Your task to perform on an android device: add a contact in the contacts app Image 0: 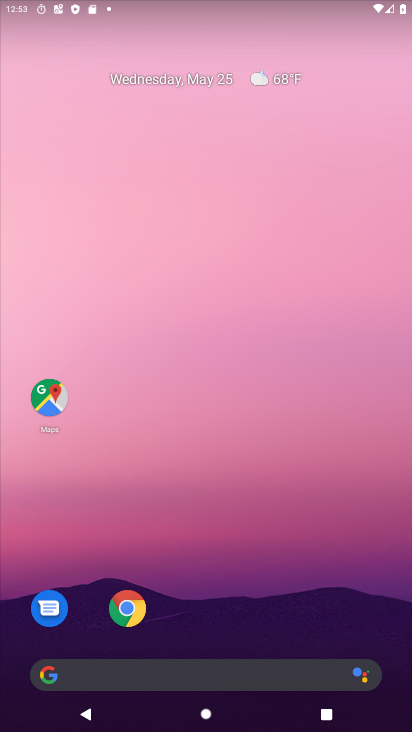
Step 0: drag from (278, 594) to (313, 20)
Your task to perform on an android device: add a contact in the contacts app Image 1: 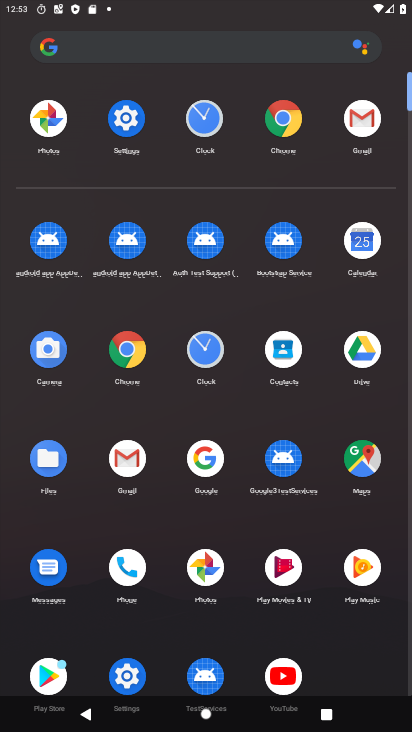
Step 1: click (284, 343)
Your task to perform on an android device: add a contact in the contacts app Image 2: 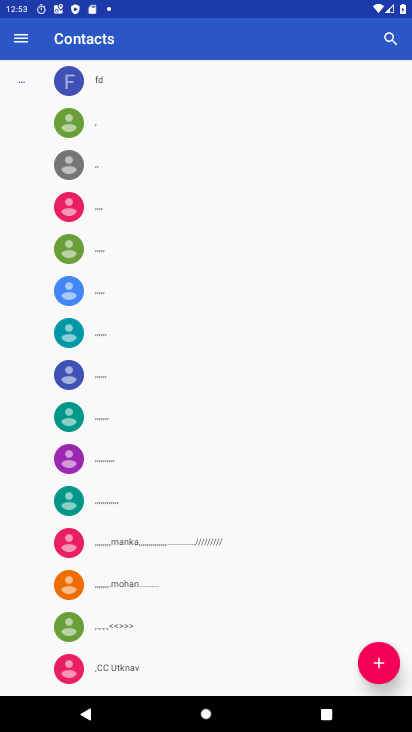
Step 2: click (394, 682)
Your task to perform on an android device: add a contact in the contacts app Image 3: 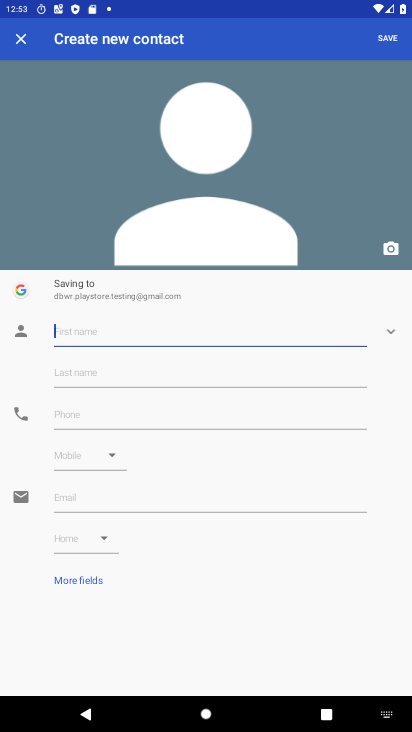
Step 3: type "sd"
Your task to perform on an android device: add a contact in the contacts app Image 4: 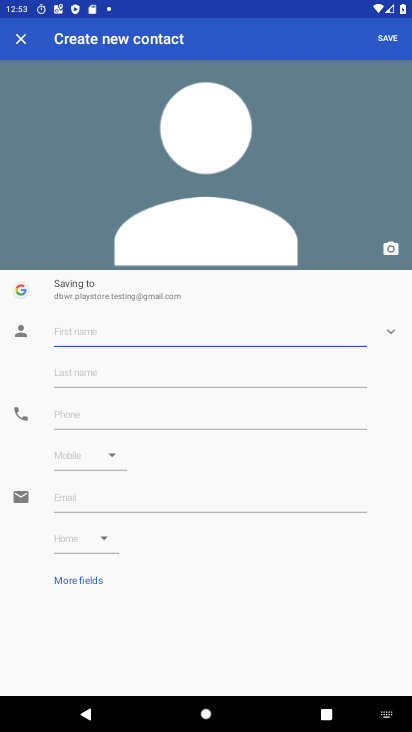
Step 4: click (245, 423)
Your task to perform on an android device: add a contact in the contacts app Image 5: 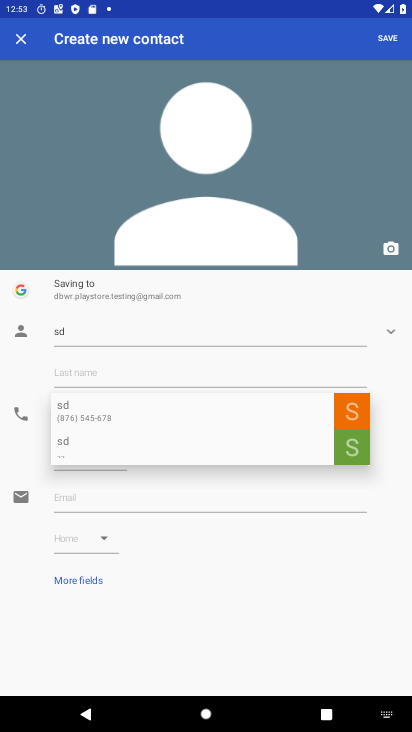
Step 5: type "1234678901"
Your task to perform on an android device: add a contact in the contacts app Image 6: 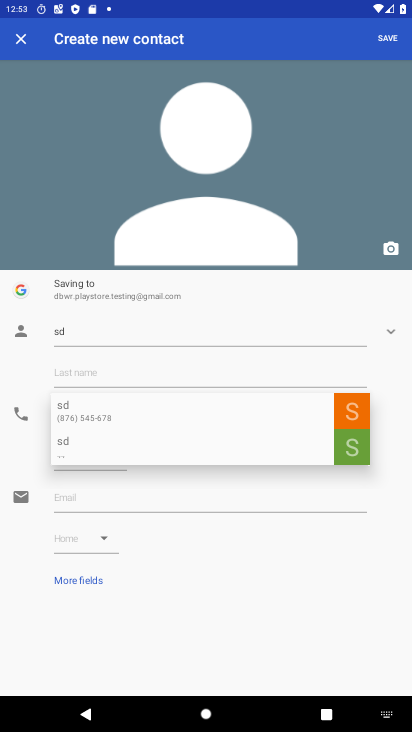
Step 6: click (393, 41)
Your task to perform on an android device: add a contact in the contacts app Image 7: 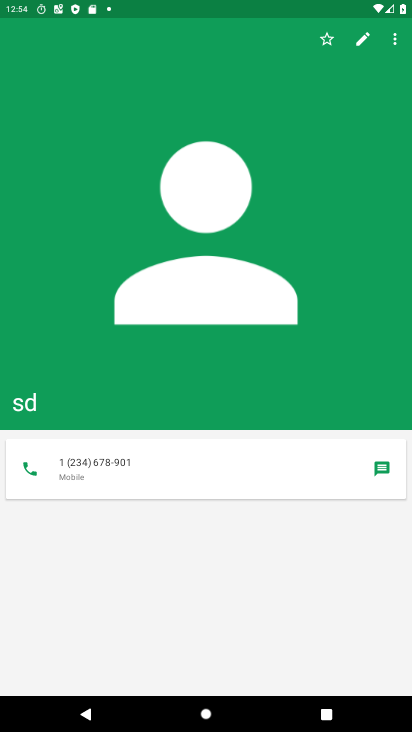
Step 7: task complete